Your task to perform on an android device: move a message to another label in the gmail app Image 0: 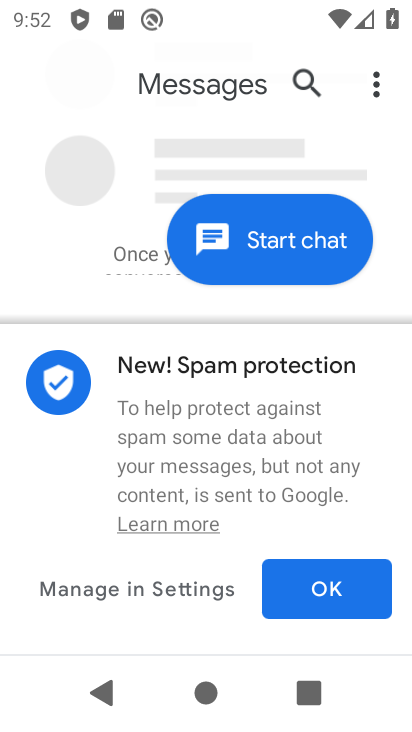
Step 0: press home button
Your task to perform on an android device: move a message to another label in the gmail app Image 1: 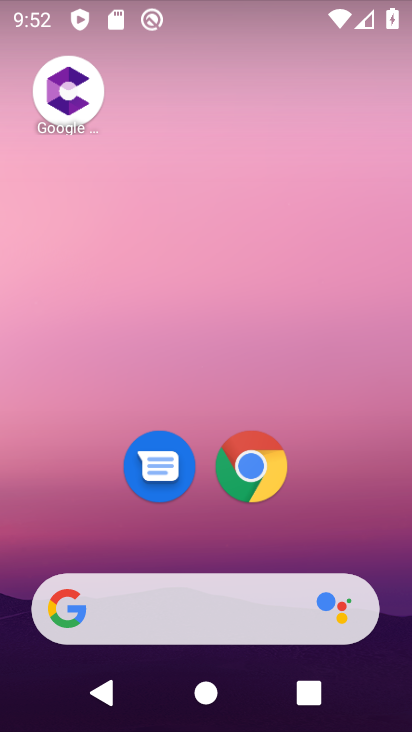
Step 1: drag from (234, 548) to (249, 154)
Your task to perform on an android device: move a message to another label in the gmail app Image 2: 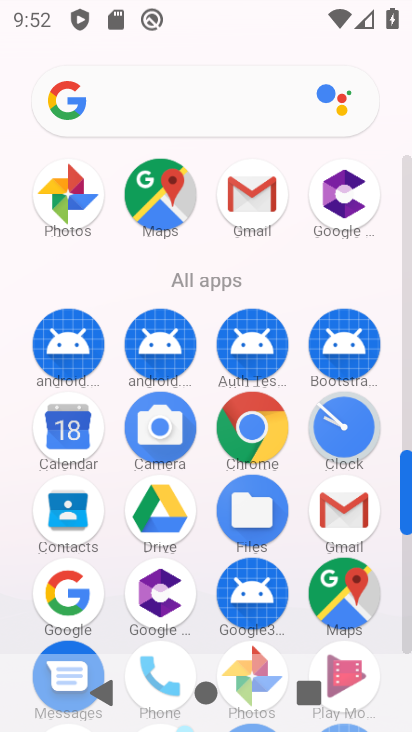
Step 2: click (341, 530)
Your task to perform on an android device: move a message to another label in the gmail app Image 3: 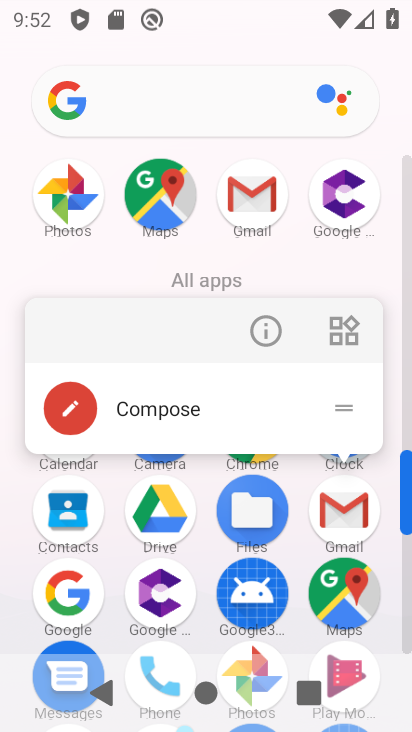
Step 3: click (347, 498)
Your task to perform on an android device: move a message to another label in the gmail app Image 4: 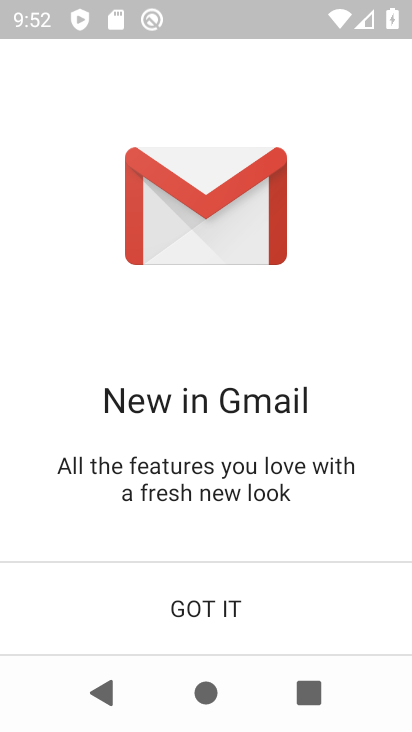
Step 4: click (209, 623)
Your task to perform on an android device: move a message to another label in the gmail app Image 5: 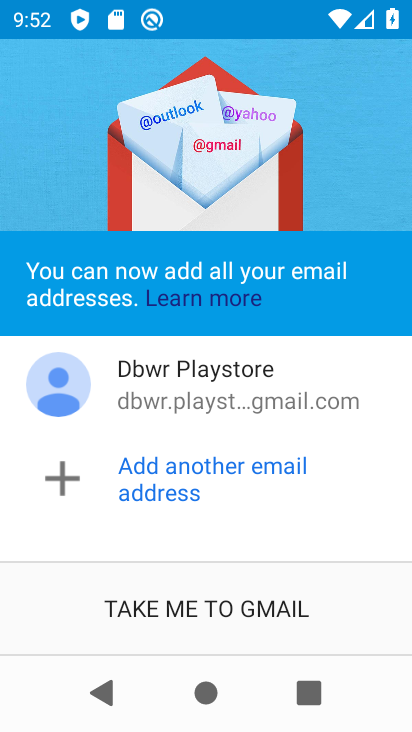
Step 5: click (209, 623)
Your task to perform on an android device: move a message to another label in the gmail app Image 6: 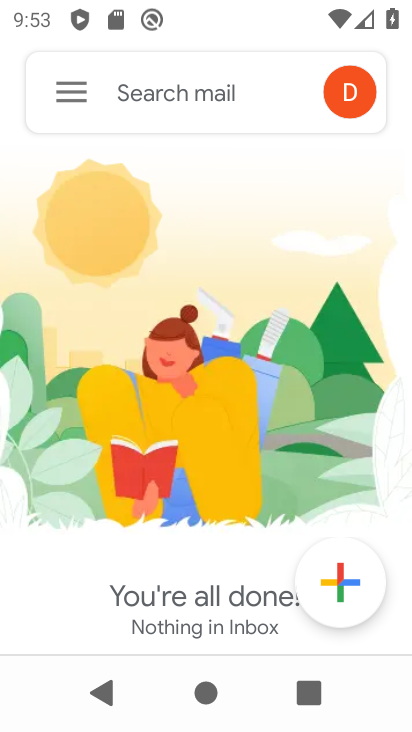
Step 6: click (70, 100)
Your task to perform on an android device: move a message to another label in the gmail app Image 7: 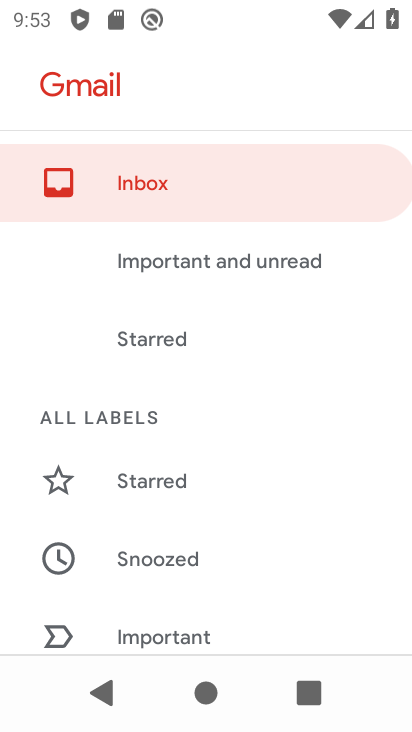
Step 7: drag from (192, 510) to (260, 81)
Your task to perform on an android device: move a message to another label in the gmail app Image 8: 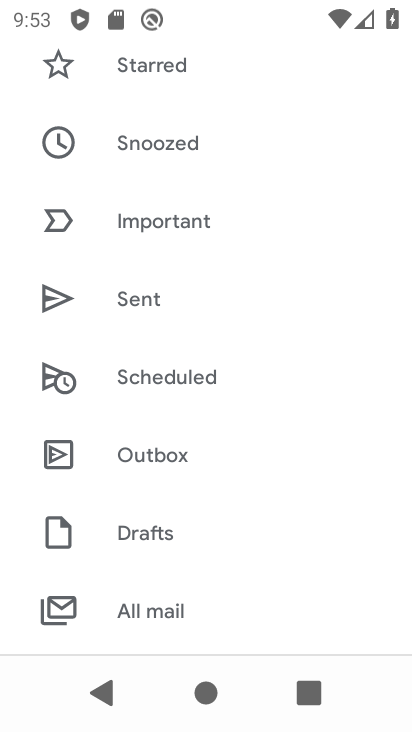
Step 8: drag from (215, 556) to (289, 201)
Your task to perform on an android device: move a message to another label in the gmail app Image 9: 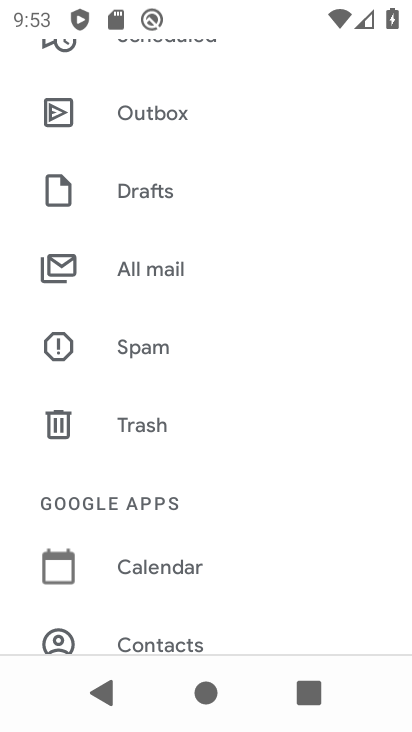
Step 9: click (181, 273)
Your task to perform on an android device: move a message to another label in the gmail app Image 10: 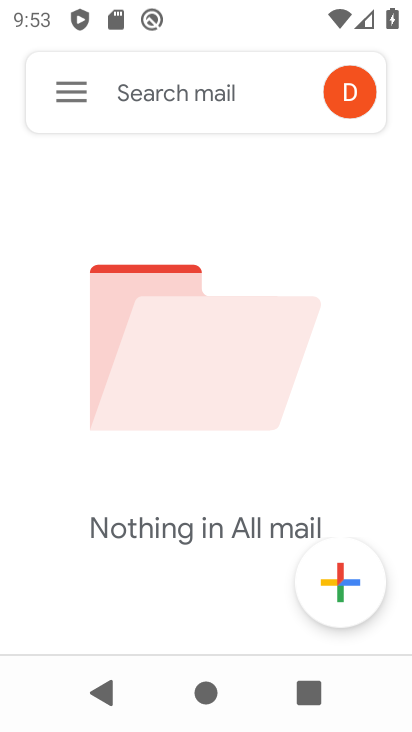
Step 10: task complete